Your task to perform on an android device: set an alarm Image 0: 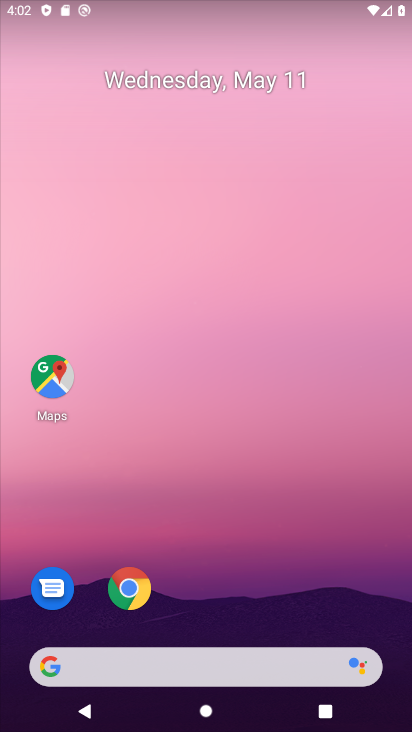
Step 0: drag from (225, 586) to (218, 128)
Your task to perform on an android device: set an alarm Image 1: 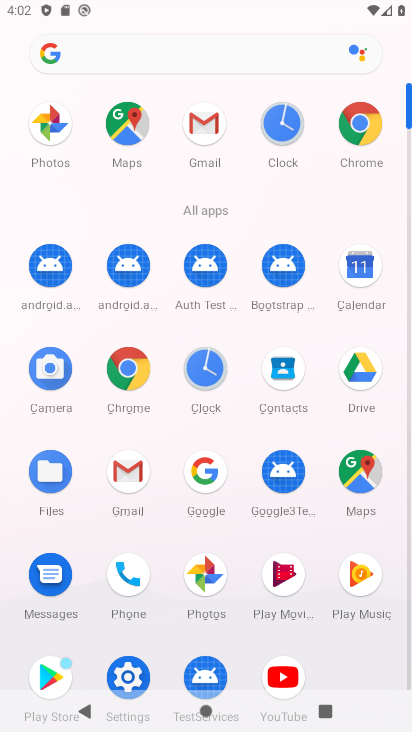
Step 1: click (196, 377)
Your task to perform on an android device: set an alarm Image 2: 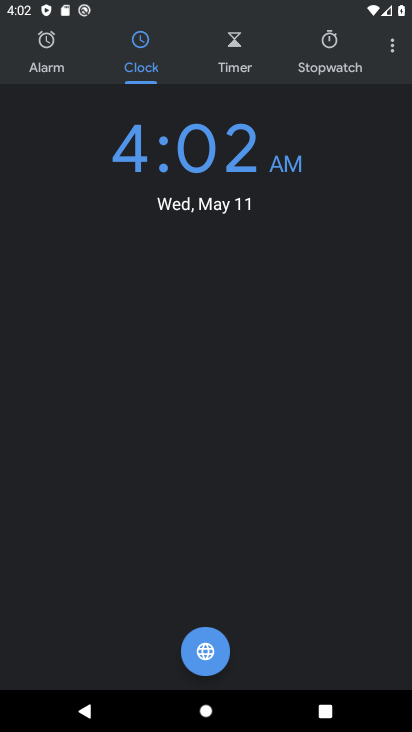
Step 2: click (31, 82)
Your task to perform on an android device: set an alarm Image 3: 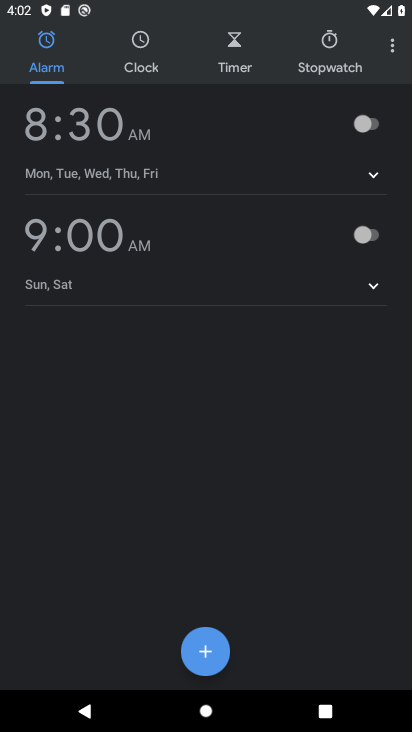
Step 3: click (364, 126)
Your task to perform on an android device: set an alarm Image 4: 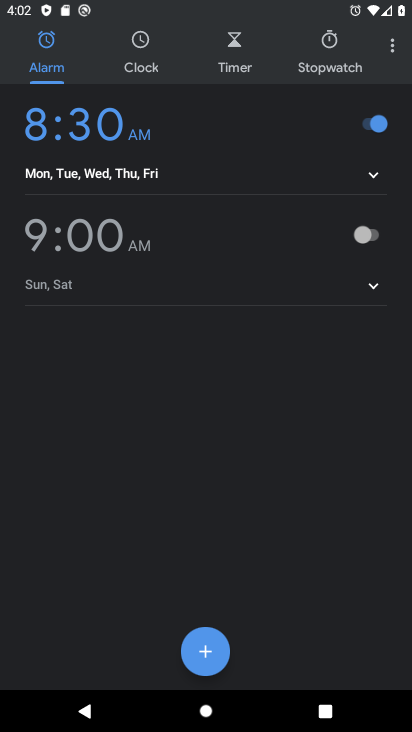
Step 4: task complete